Your task to perform on an android device: Open Amazon Image 0: 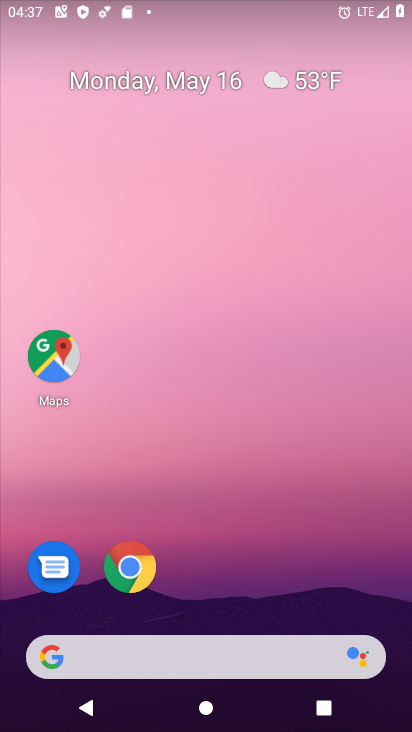
Step 0: drag from (172, 663) to (192, 46)
Your task to perform on an android device: Open Amazon Image 1: 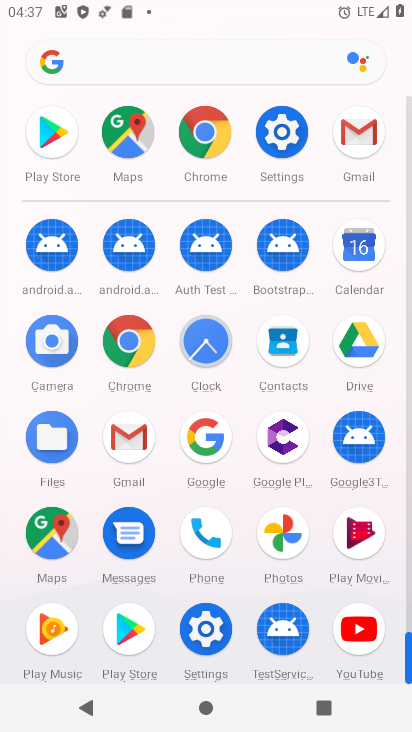
Step 1: click (127, 317)
Your task to perform on an android device: Open Amazon Image 2: 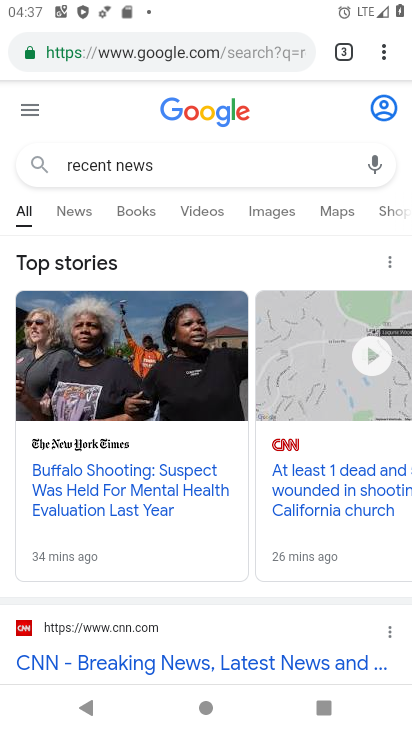
Step 2: click (386, 52)
Your task to perform on an android device: Open Amazon Image 3: 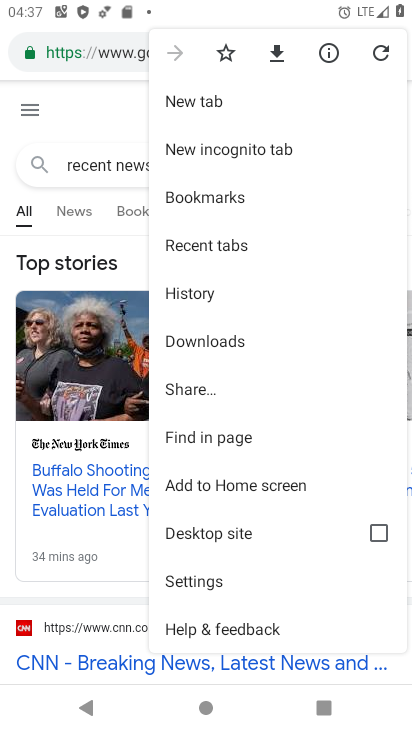
Step 3: click (227, 93)
Your task to perform on an android device: Open Amazon Image 4: 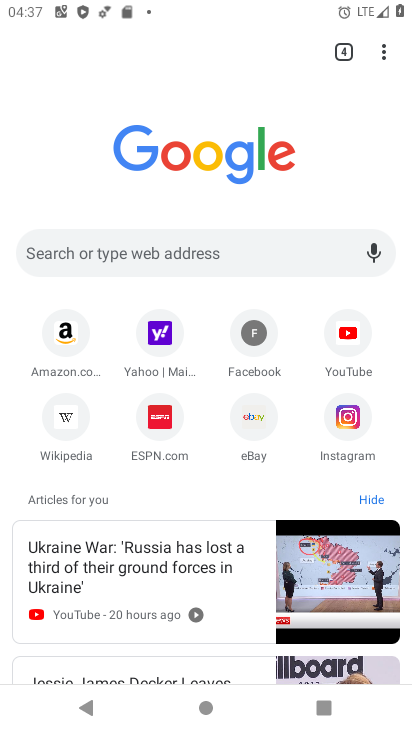
Step 4: click (70, 345)
Your task to perform on an android device: Open Amazon Image 5: 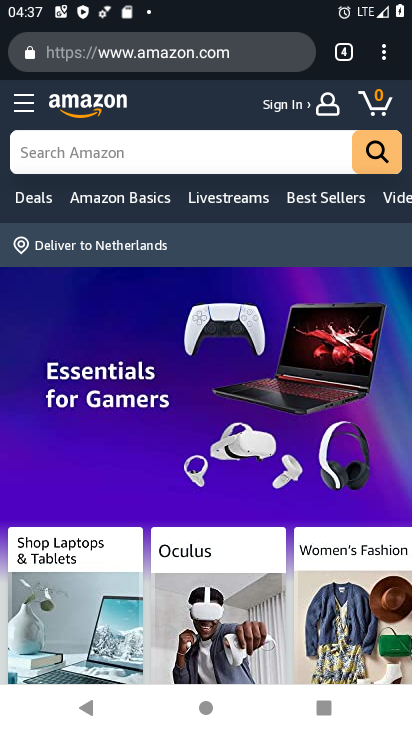
Step 5: task complete